Your task to perform on an android device: empty trash in google photos Image 0: 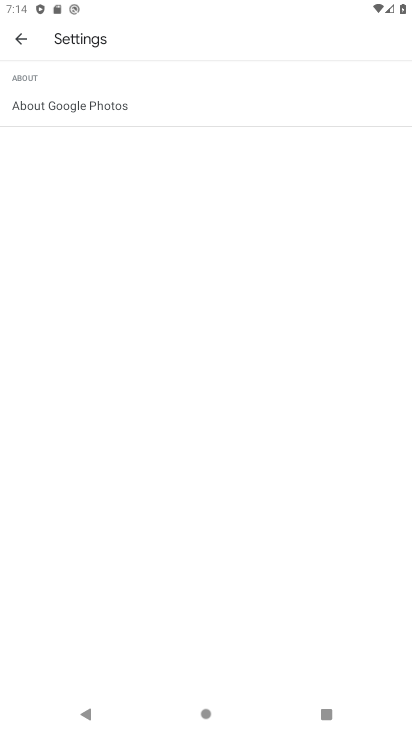
Step 0: press home button
Your task to perform on an android device: empty trash in google photos Image 1: 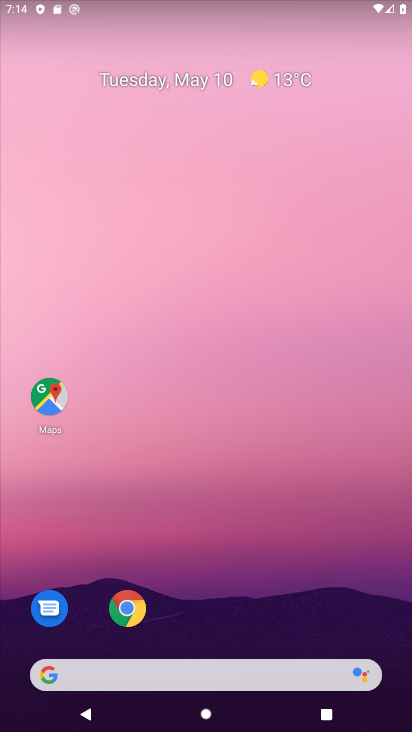
Step 1: drag from (324, 604) to (264, 111)
Your task to perform on an android device: empty trash in google photos Image 2: 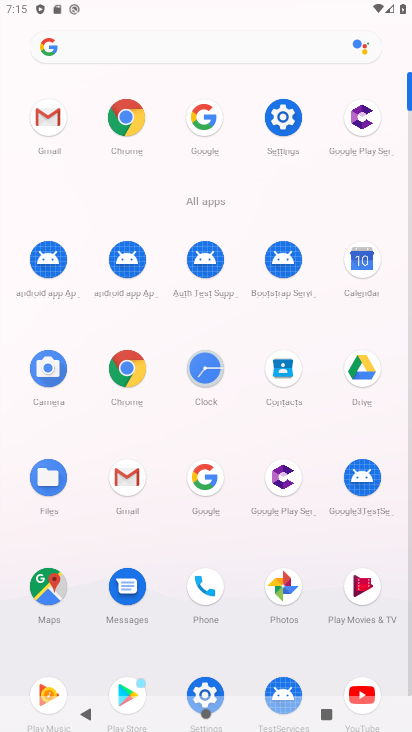
Step 2: click (286, 603)
Your task to perform on an android device: empty trash in google photos Image 3: 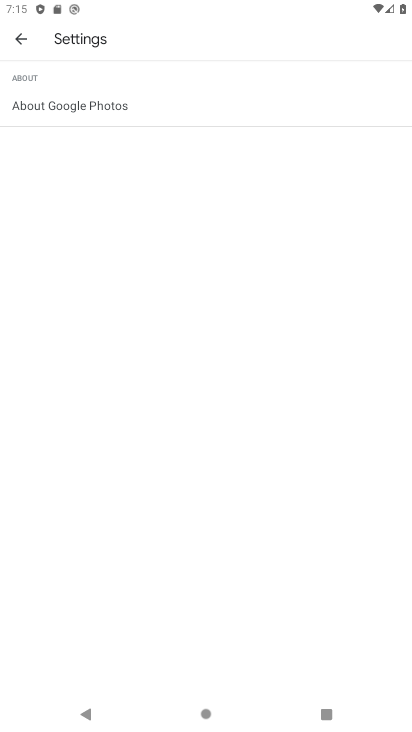
Step 3: click (17, 40)
Your task to perform on an android device: empty trash in google photos Image 4: 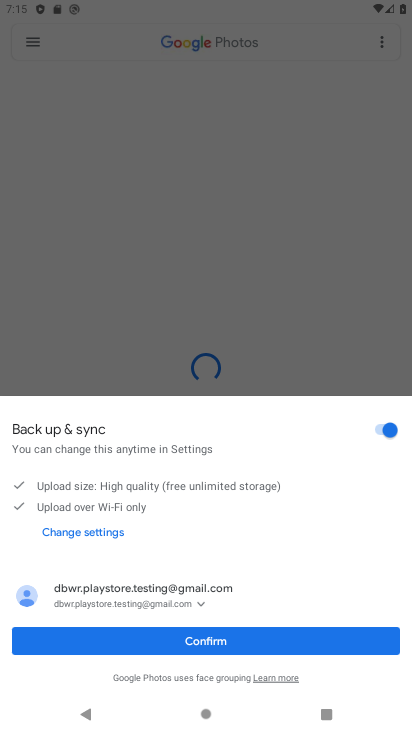
Step 4: click (220, 635)
Your task to perform on an android device: empty trash in google photos Image 5: 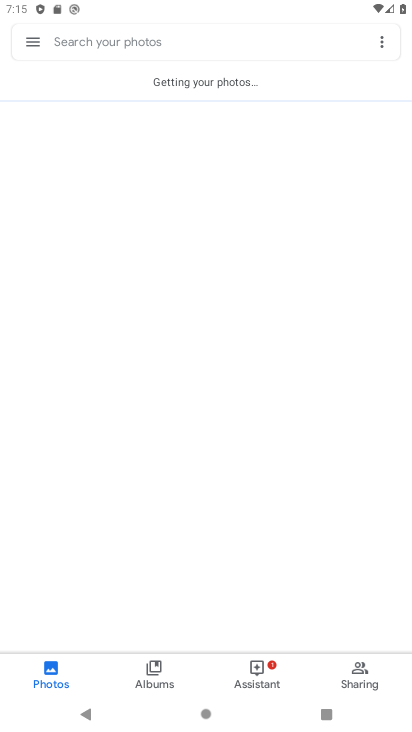
Step 5: click (35, 40)
Your task to perform on an android device: empty trash in google photos Image 6: 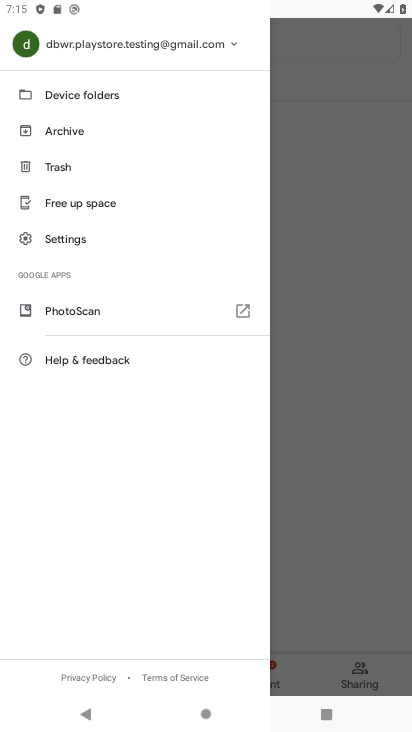
Step 6: click (87, 173)
Your task to perform on an android device: empty trash in google photos Image 7: 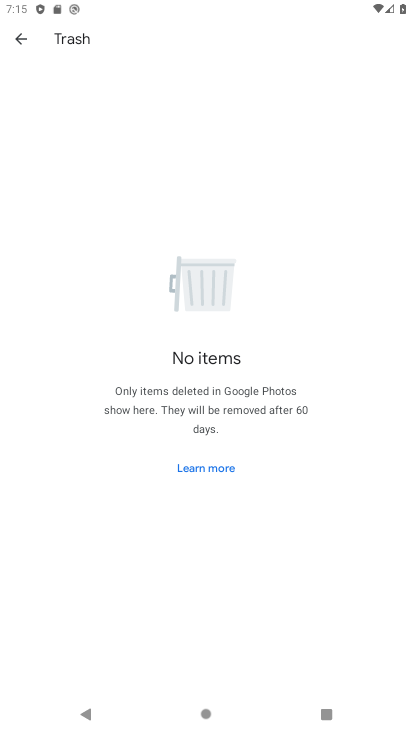
Step 7: task complete